Your task to perform on an android device: remove spam from my inbox in the gmail app Image 0: 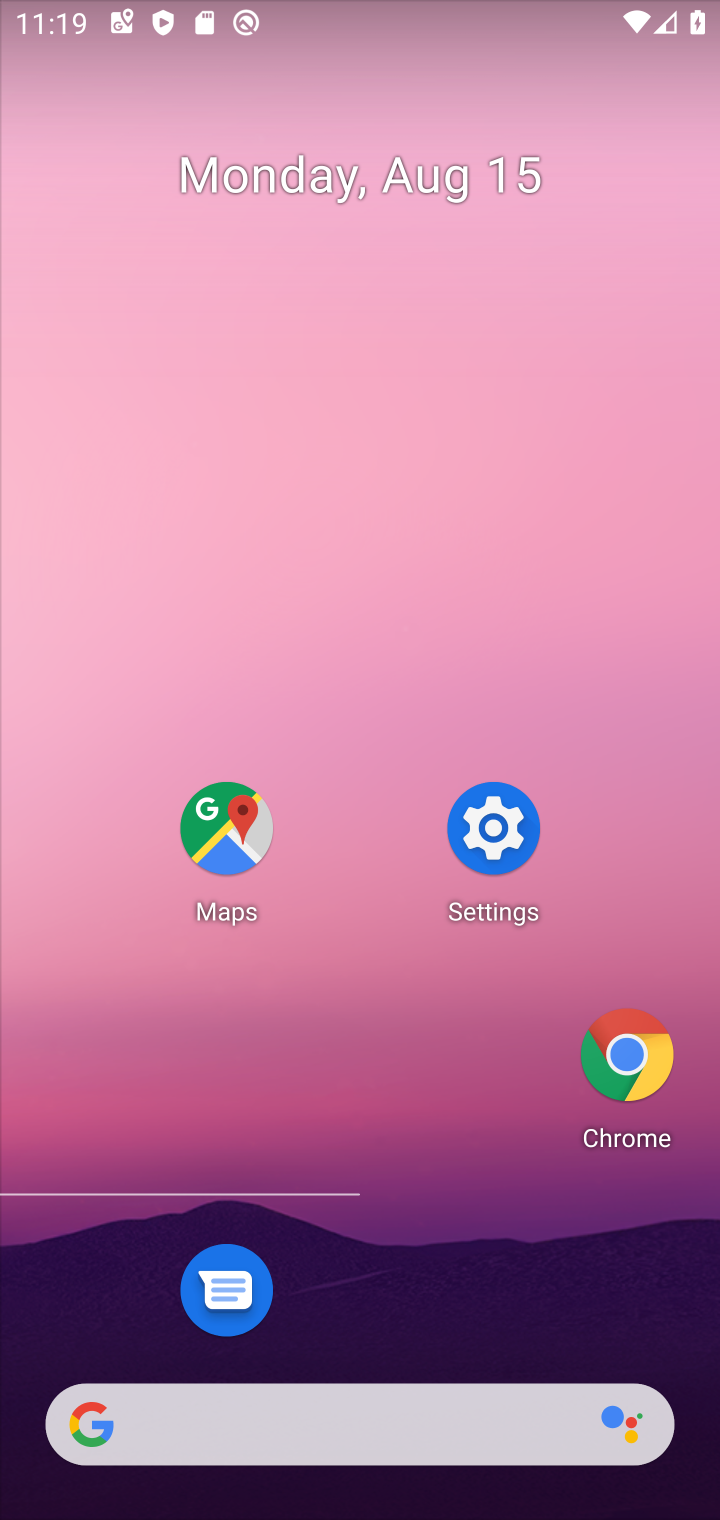
Step 0: press home button
Your task to perform on an android device: remove spam from my inbox in the gmail app Image 1: 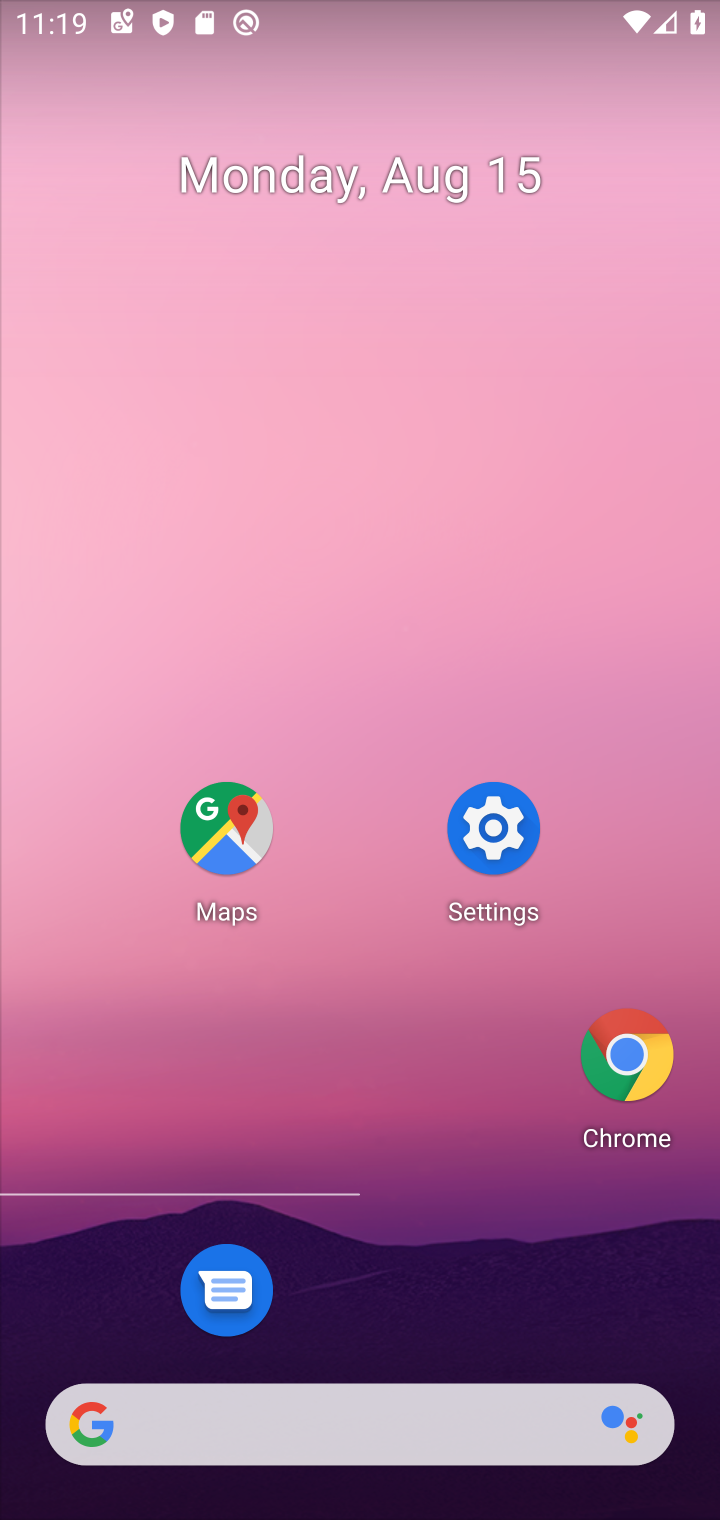
Step 1: drag from (391, 1401) to (589, 225)
Your task to perform on an android device: remove spam from my inbox in the gmail app Image 2: 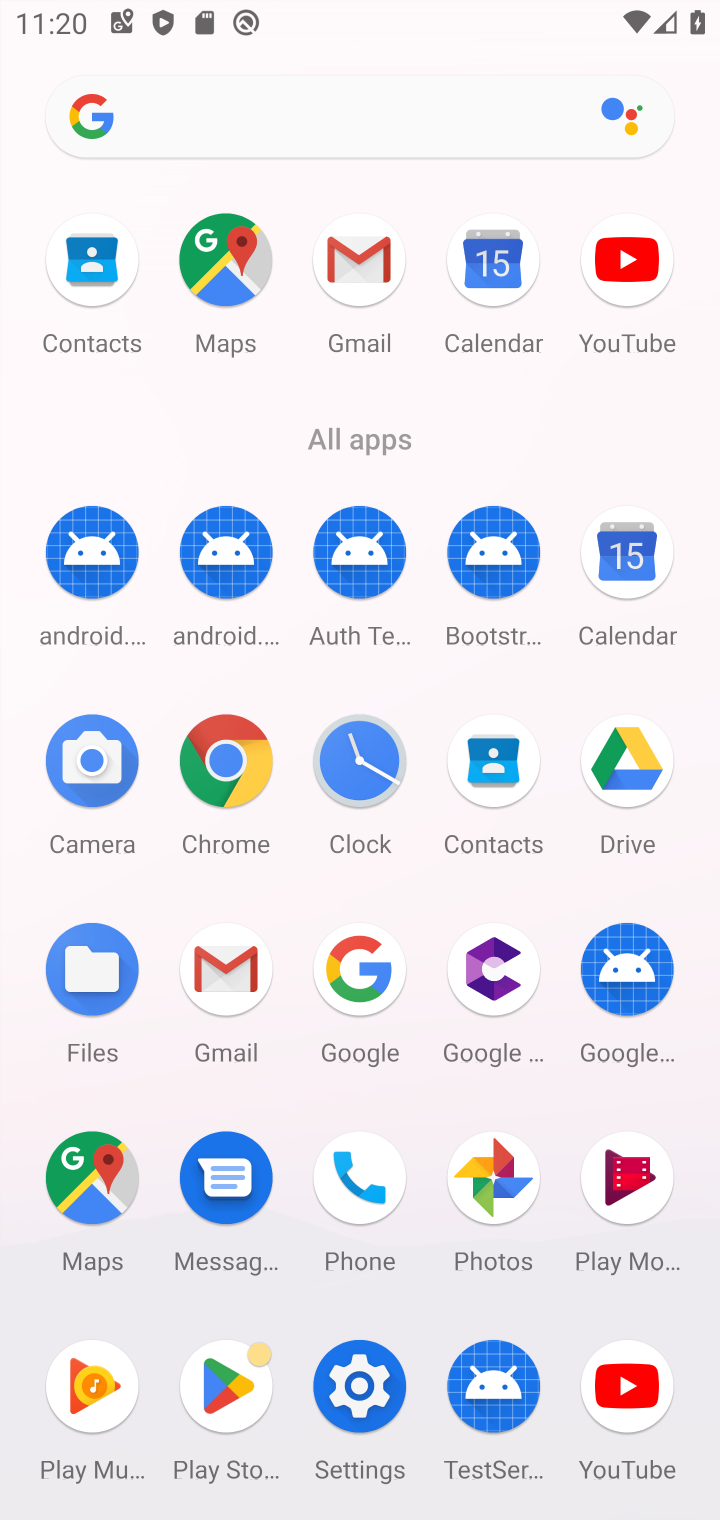
Step 2: click (334, 276)
Your task to perform on an android device: remove spam from my inbox in the gmail app Image 3: 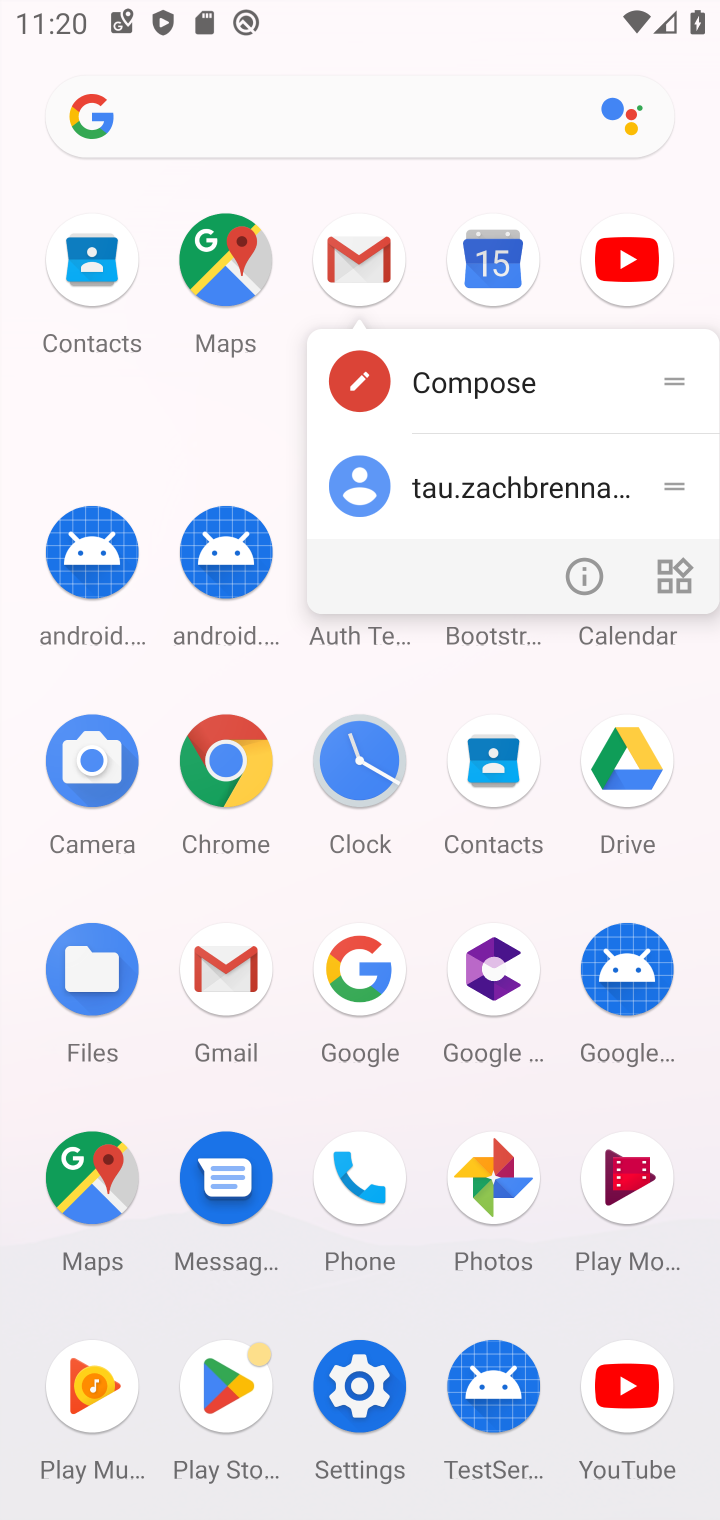
Step 3: click (359, 256)
Your task to perform on an android device: remove spam from my inbox in the gmail app Image 4: 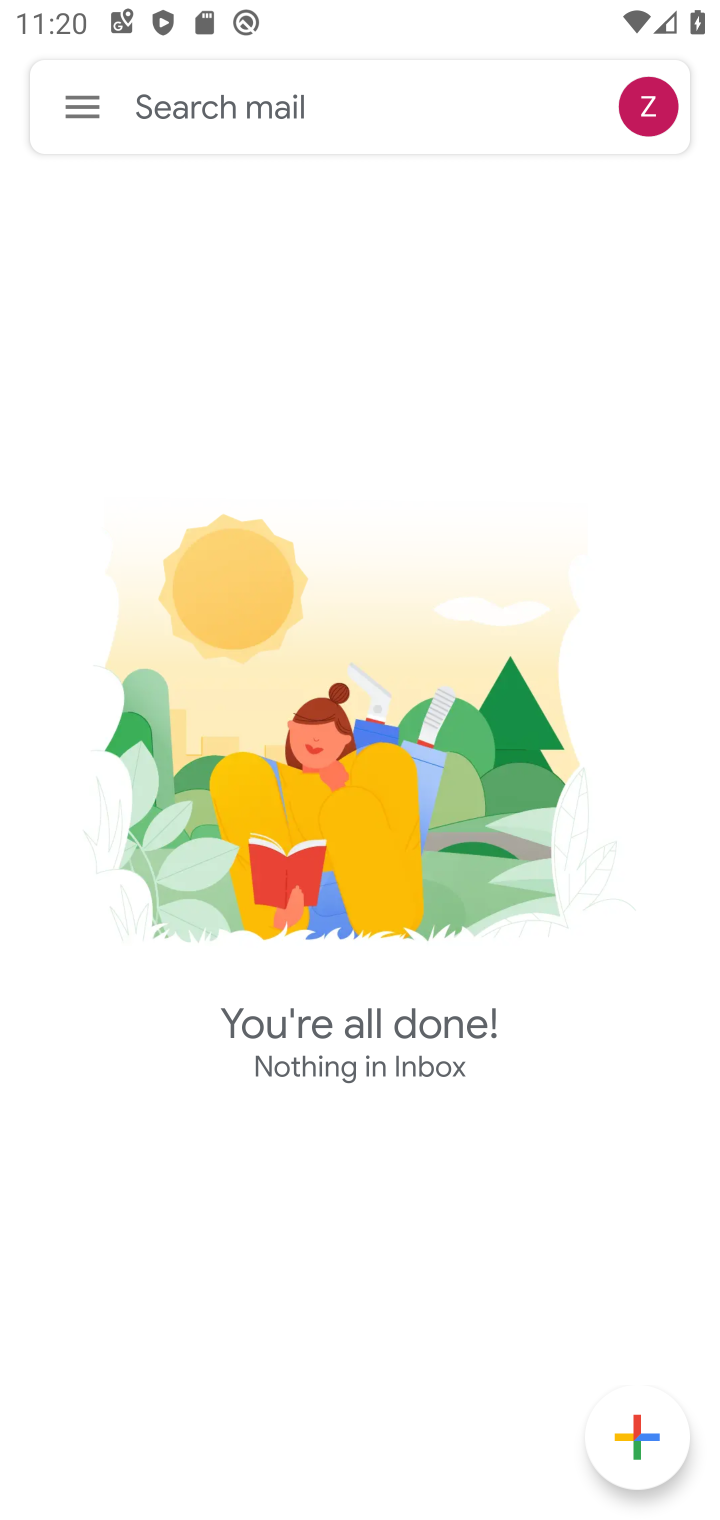
Step 4: click (75, 107)
Your task to perform on an android device: remove spam from my inbox in the gmail app Image 5: 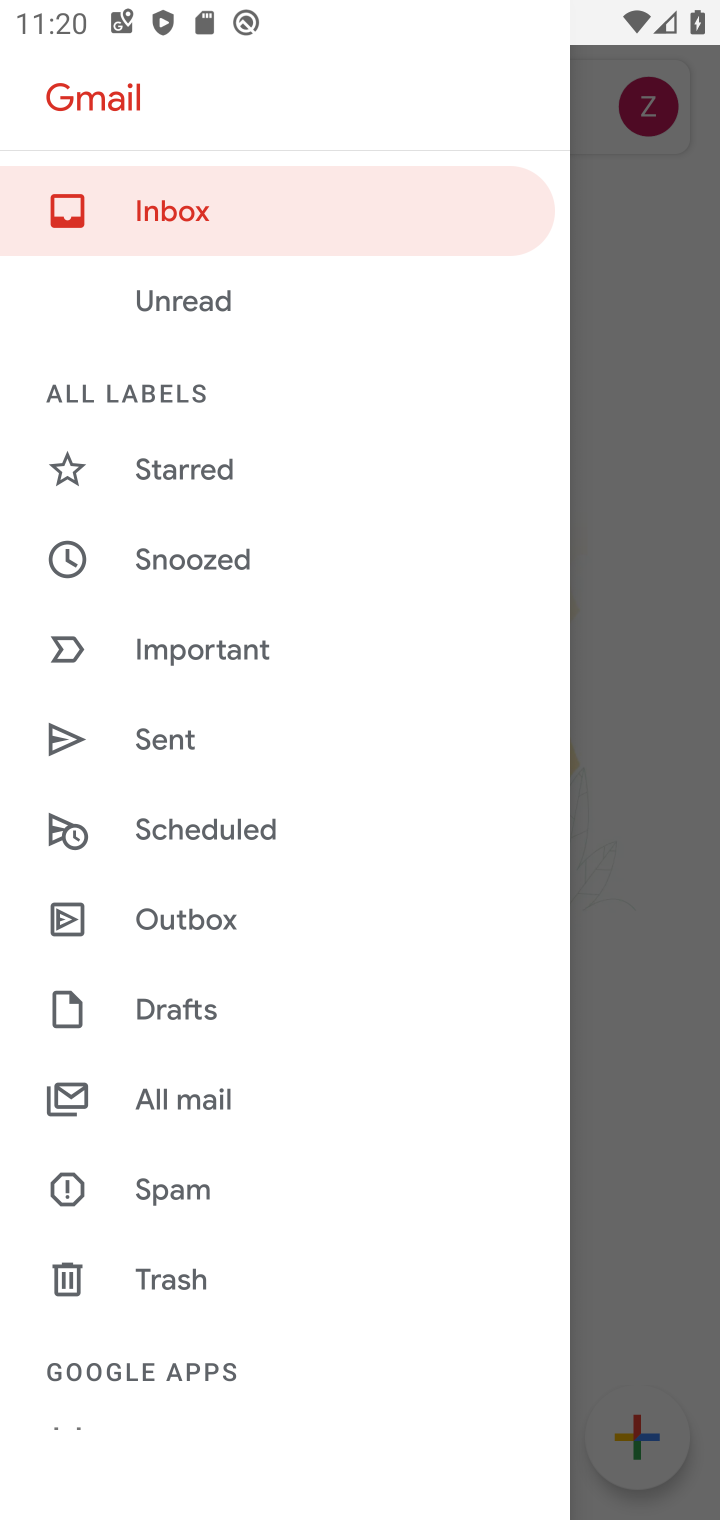
Step 5: click (176, 1188)
Your task to perform on an android device: remove spam from my inbox in the gmail app Image 6: 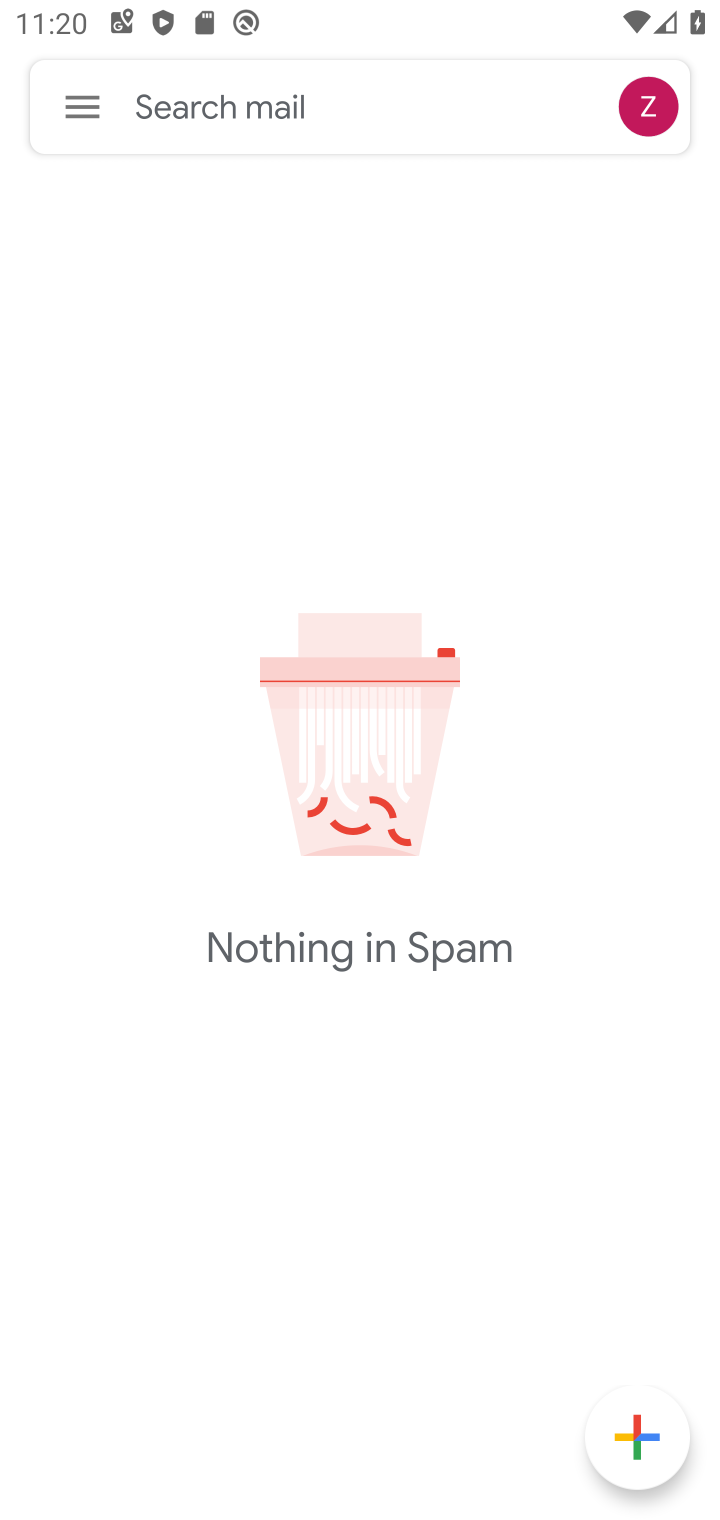
Step 6: task complete